Your task to perform on an android device: turn notification dots on Image 0: 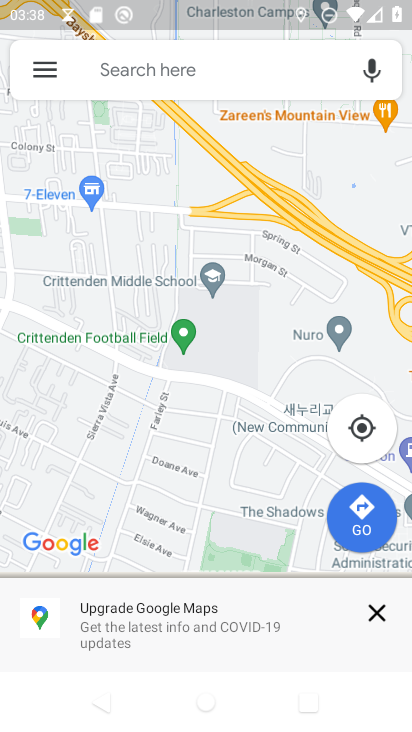
Step 0: press home button
Your task to perform on an android device: turn notification dots on Image 1: 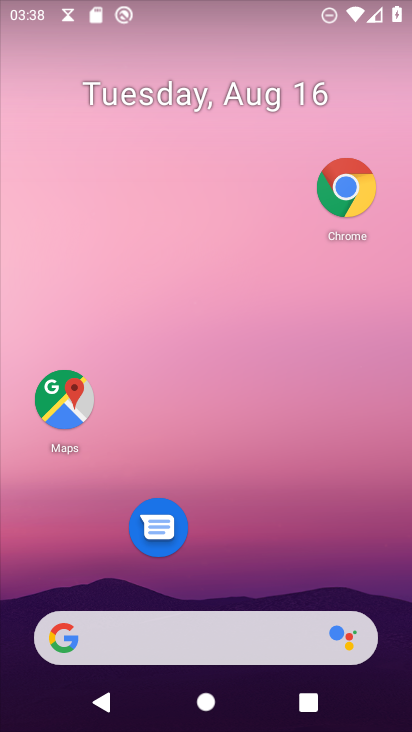
Step 1: drag from (230, 596) to (243, 99)
Your task to perform on an android device: turn notification dots on Image 2: 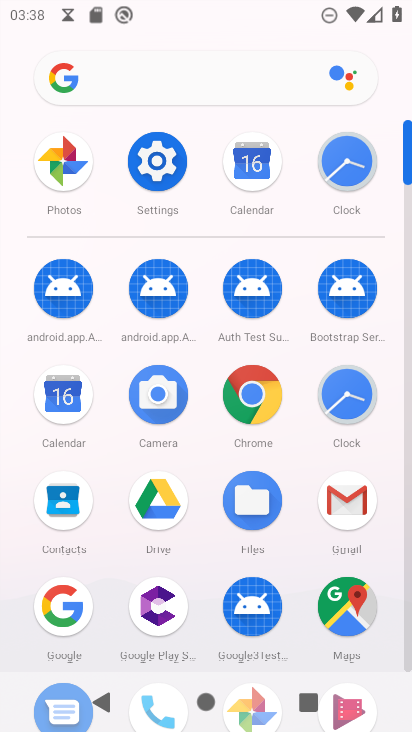
Step 2: click (154, 155)
Your task to perform on an android device: turn notification dots on Image 3: 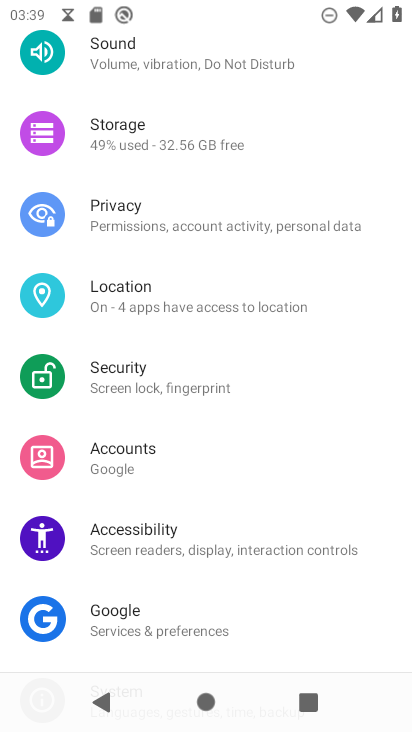
Step 3: drag from (147, 91) to (215, 666)
Your task to perform on an android device: turn notification dots on Image 4: 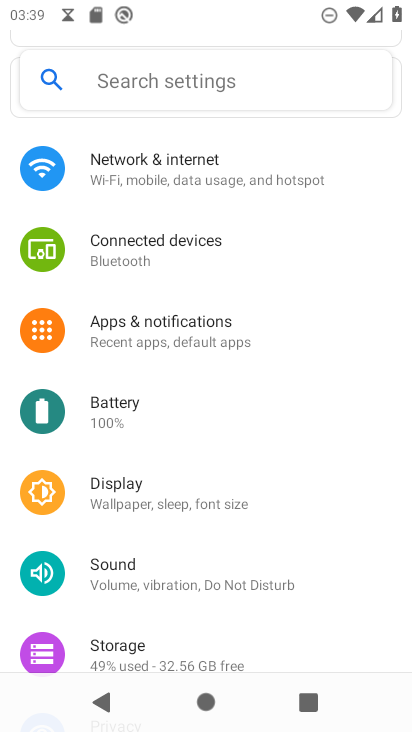
Step 4: click (262, 323)
Your task to perform on an android device: turn notification dots on Image 5: 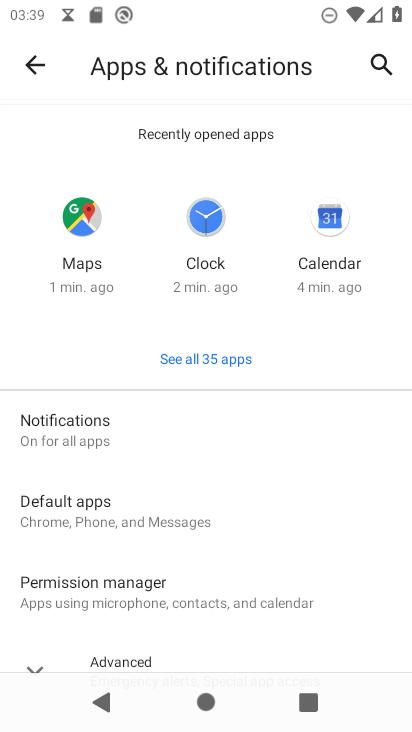
Step 5: click (122, 425)
Your task to perform on an android device: turn notification dots on Image 6: 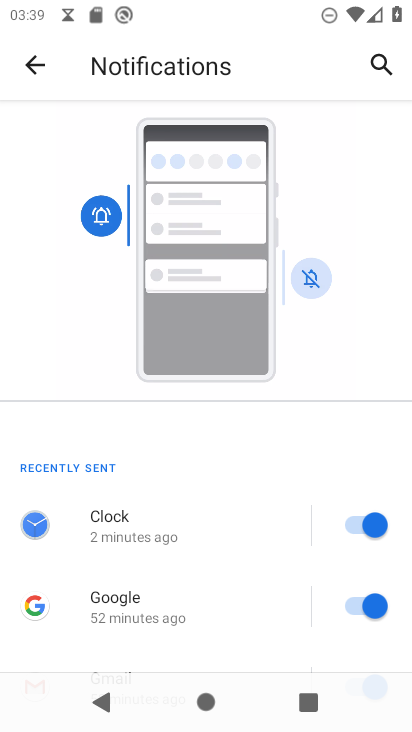
Step 6: drag from (220, 631) to (251, 248)
Your task to perform on an android device: turn notification dots on Image 7: 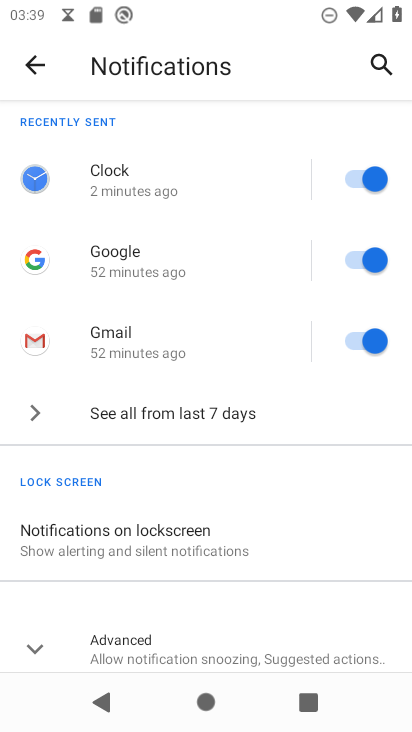
Step 7: click (34, 639)
Your task to perform on an android device: turn notification dots on Image 8: 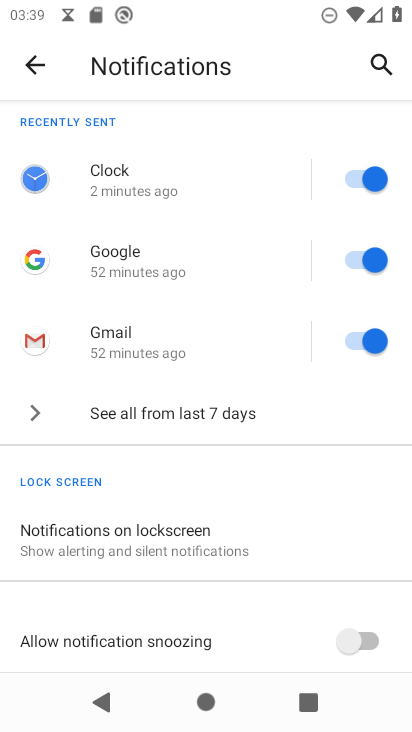
Step 8: task complete